Your task to perform on an android device: make emails show in primary in the gmail app Image 0: 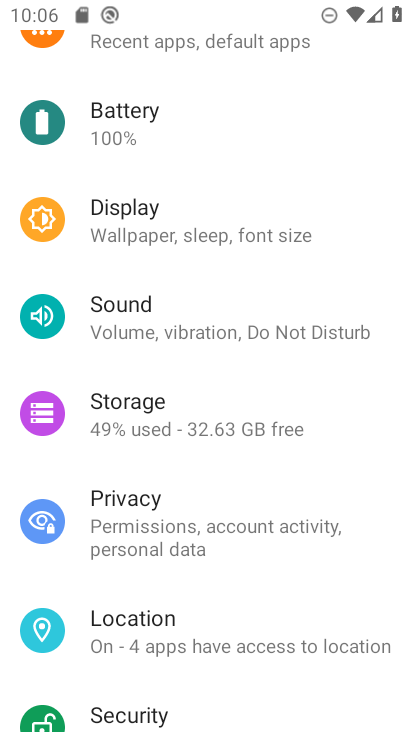
Step 0: press home button
Your task to perform on an android device: make emails show in primary in the gmail app Image 1: 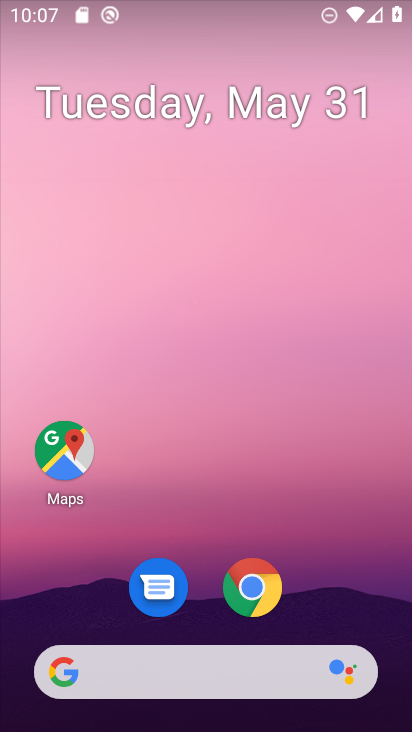
Step 1: press home button
Your task to perform on an android device: make emails show in primary in the gmail app Image 2: 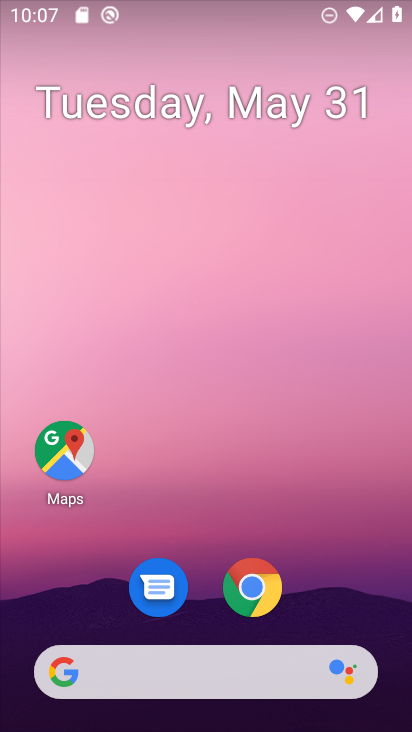
Step 2: drag from (211, 628) to (214, 27)
Your task to perform on an android device: make emails show in primary in the gmail app Image 3: 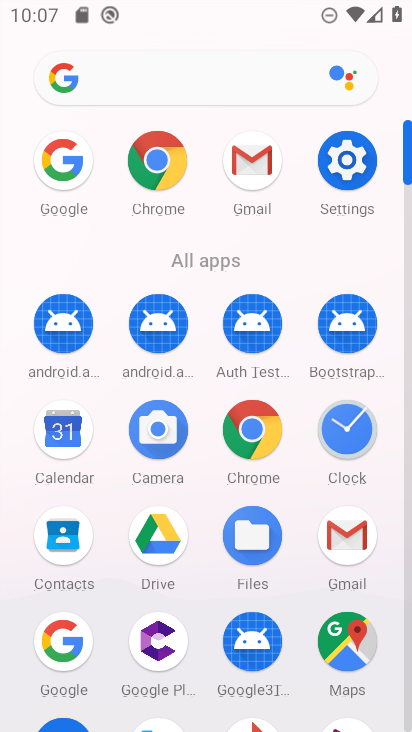
Step 3: click (251, 151)
Your task to perform on an android device: make emails show in primary in the gmail app Image 4: 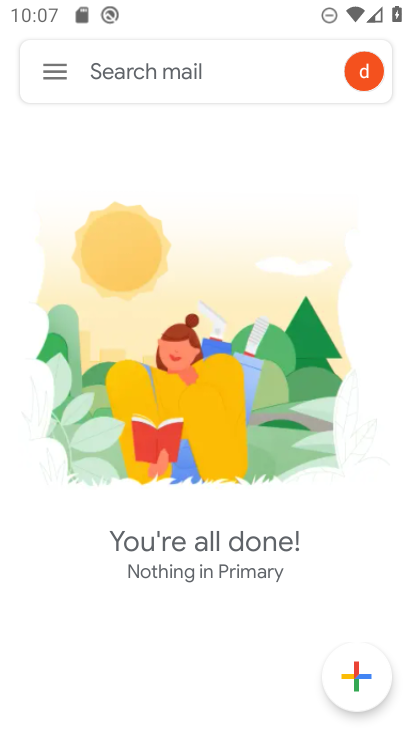
Step 4: click (50, 64)
Your task to perform on an android device: make emails show in primary in the gmail app Image 5: 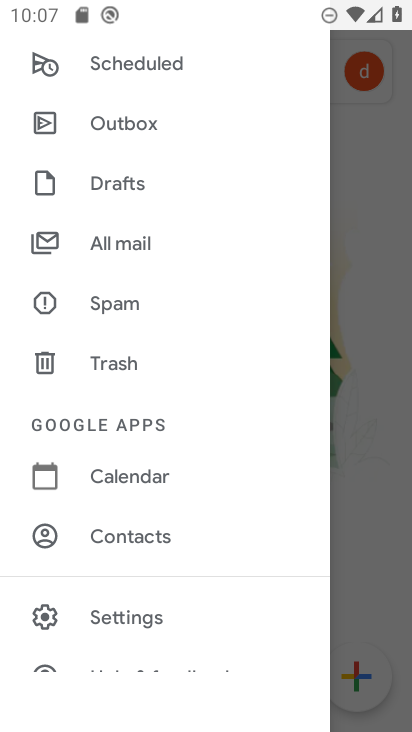
Step 5: click (176, 612)
Your task to perform on an android device: make emails show in primary in the gmail app Image 6: 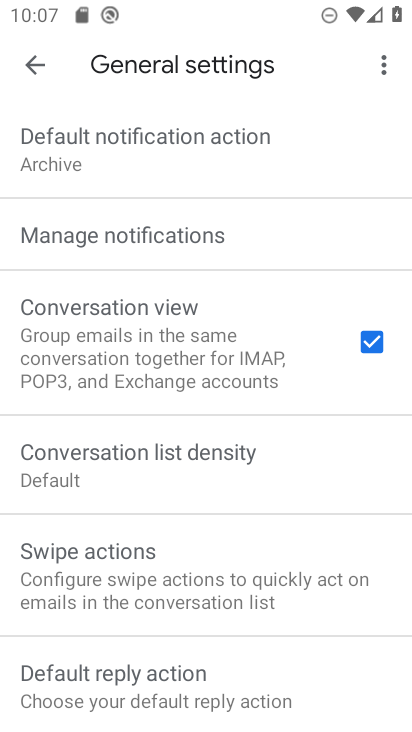
Step 6: click (42, 68)
Your task to perform on an android device: make emails show in primary in the gmail app Image 7: 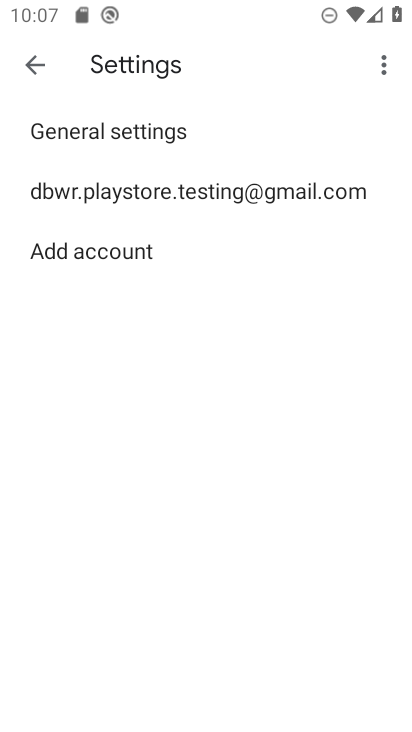
Step 7: click (251, 188)
Your task to perform on an android device: make emails show in primary in the gmail app Image 8: 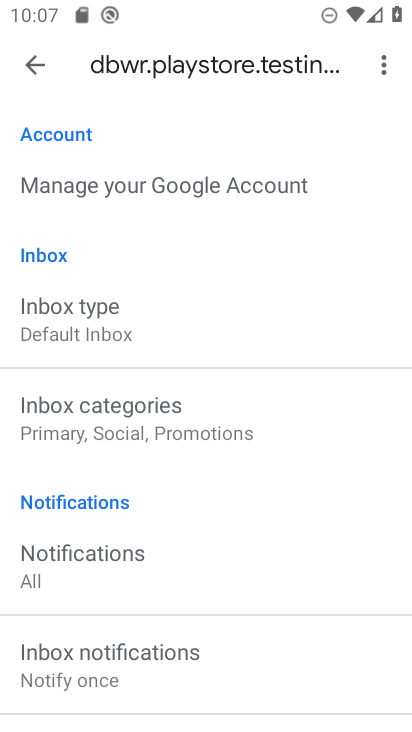
Step 8: click (153, 320)
Your task to perform on an android device: make emails show in primary in the gmail app Image 9: 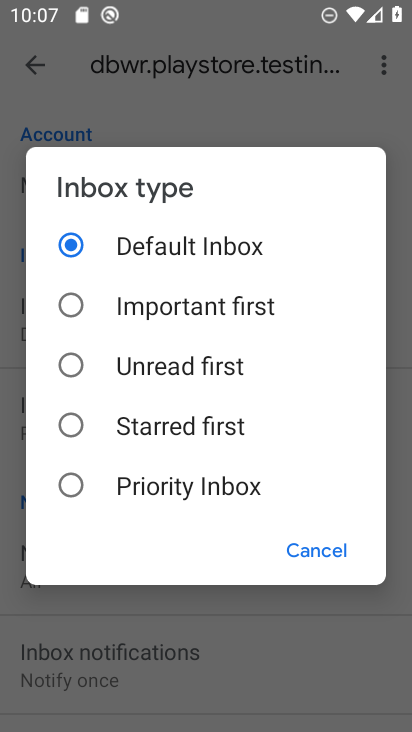
Step 9: click (137, 248)
Your task to perform on an android device: make emails show in primary in the gmail app Image 10: 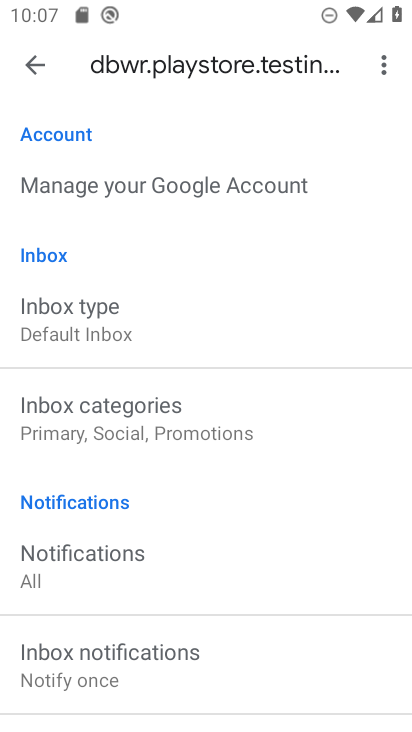
Step 10: task complete